Your task to perform on an android device: move an email to a new category in the gmail app Image 0: 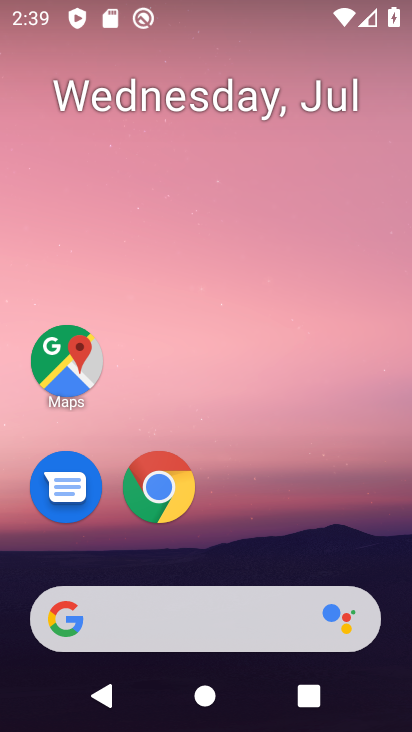
Step 0: drag from (395, 578) to (339, 160)
Your task to perform on an android device: move an email to a new category in the gmail app Image 1: 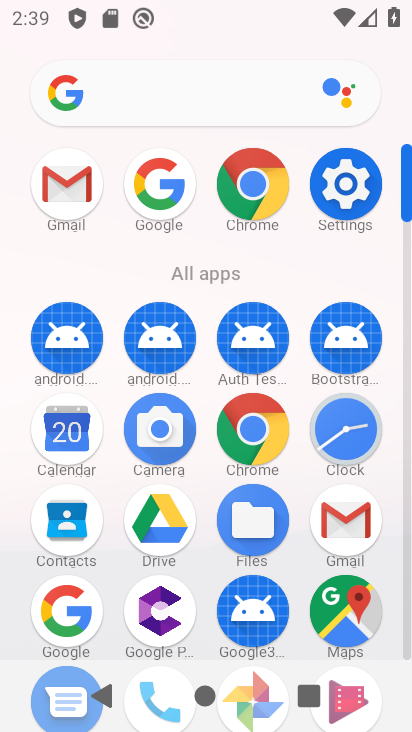
Step 1: click (71, 192)
Your task to perform on an android device: move an email to a new category in the gmail app Image 2: 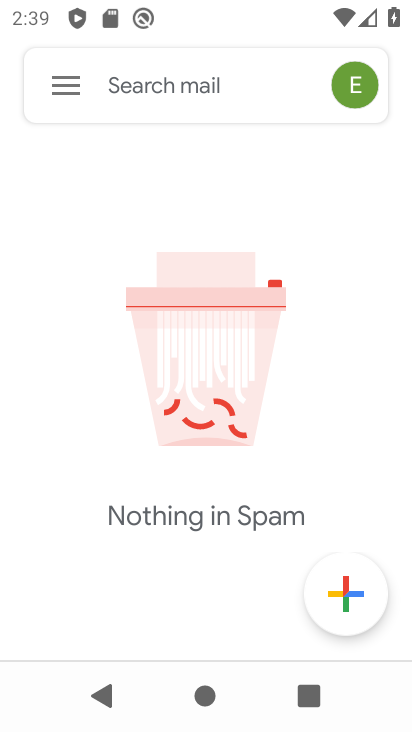
Step 2: click (65, 87)
Your task to perform on an android device: move an email to a new category in the gmail app Image 3: 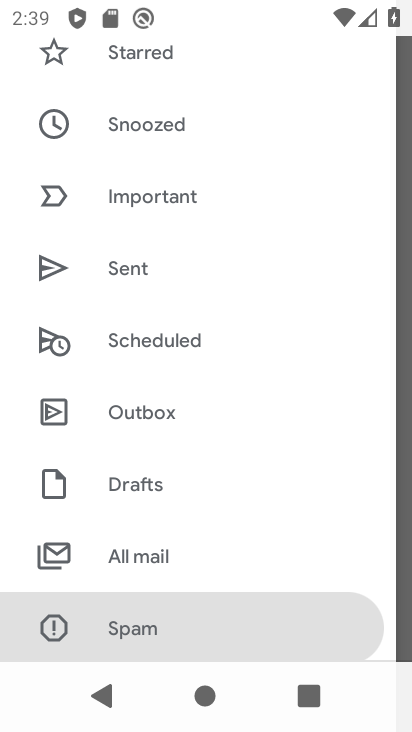
Step 3: click (186, 550)
Your task to perform on an android device: move an email to a new category in the gmail app Image 4: 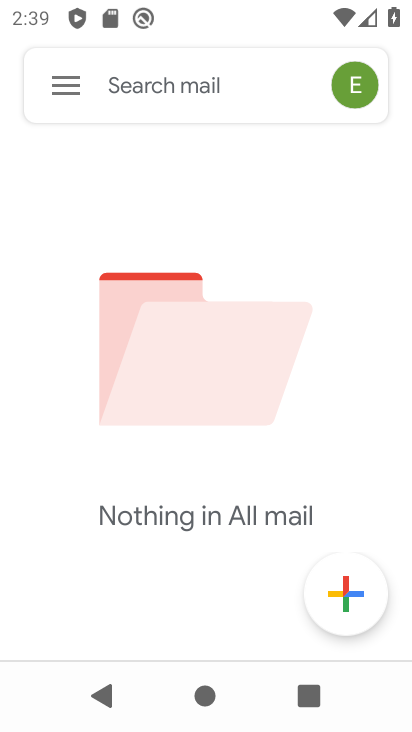
Step 4: task complete